Your task to perform on an android device: Open the map Image 0: 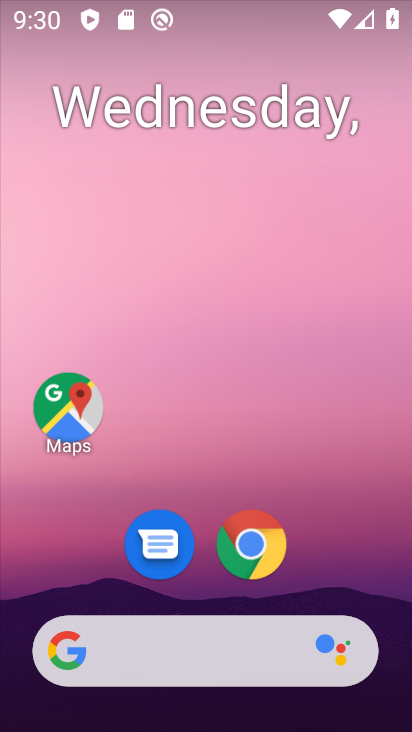
Step 0: click (82, 403)
Your task to perform on an android device: Open the map Image 1: 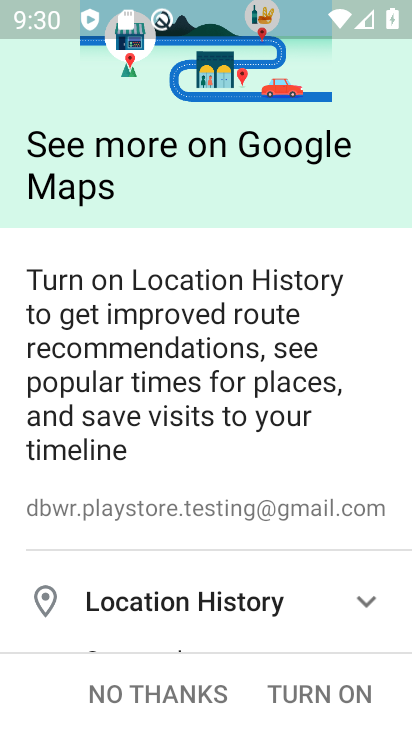
Step 1: click (164, 682)
Your task to perform on an android device: Open the map Image 2: 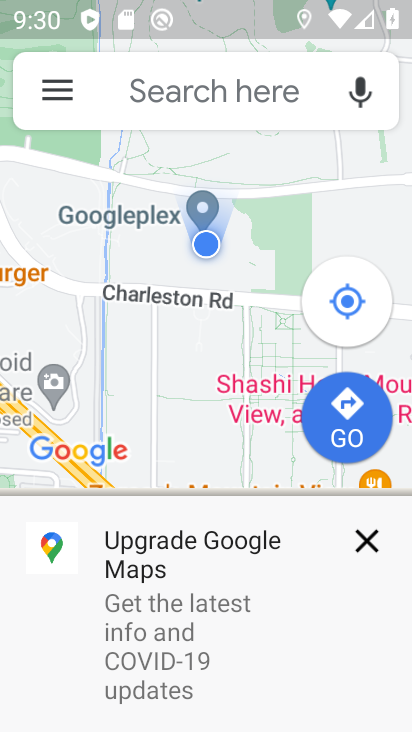
Step 2: task complete